Your task to perform on an android device: open app "Skype" (install if not already installed), go to login, and select forgot password Image 0: 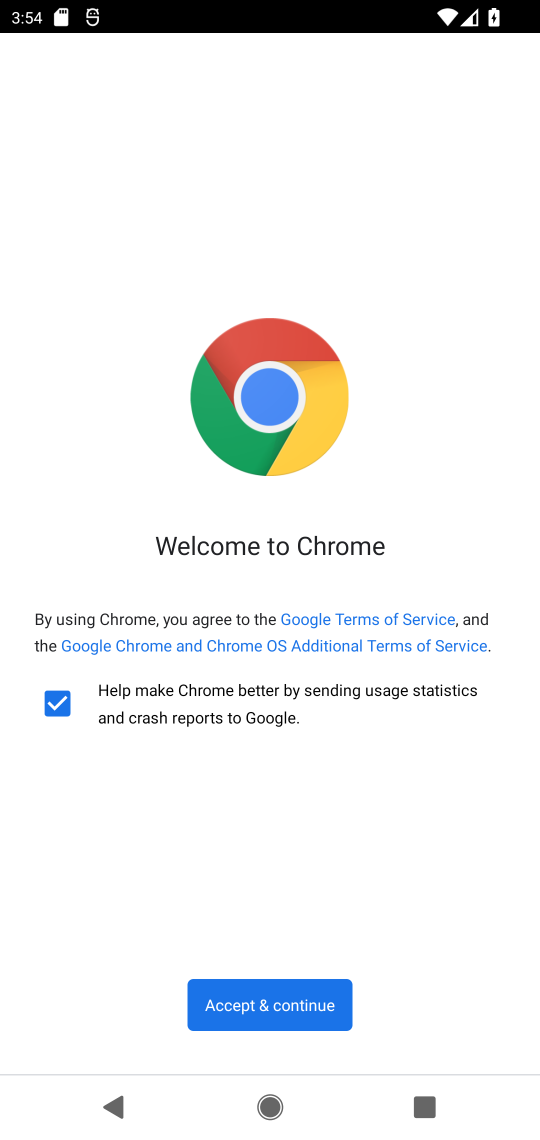
Step 0: press home button
Your task to perform on an android device: open app "Skype" (install if not already installed), go to login, and select forgot password Image 1: 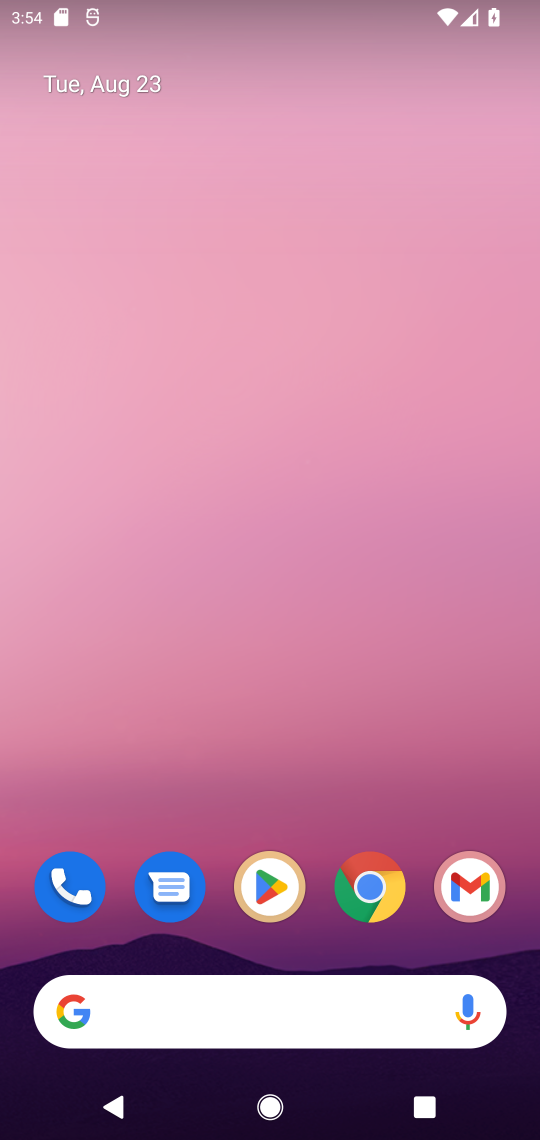
Step 1: click (278, 893)
Your task to perform on an android device: open app "Skype" (install if not already installed), go to login, and select forgot password Image 2: 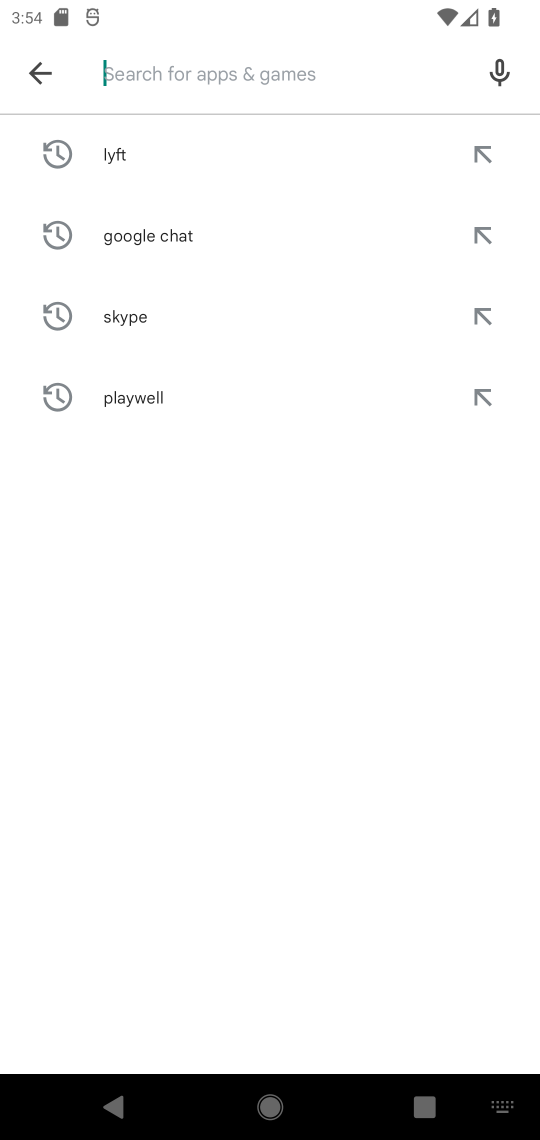
Step 2: click (45, 72)
Your task to perform on an android device: open app "Skype" (install if not already installed), go to login, and select forgot password Image 3: 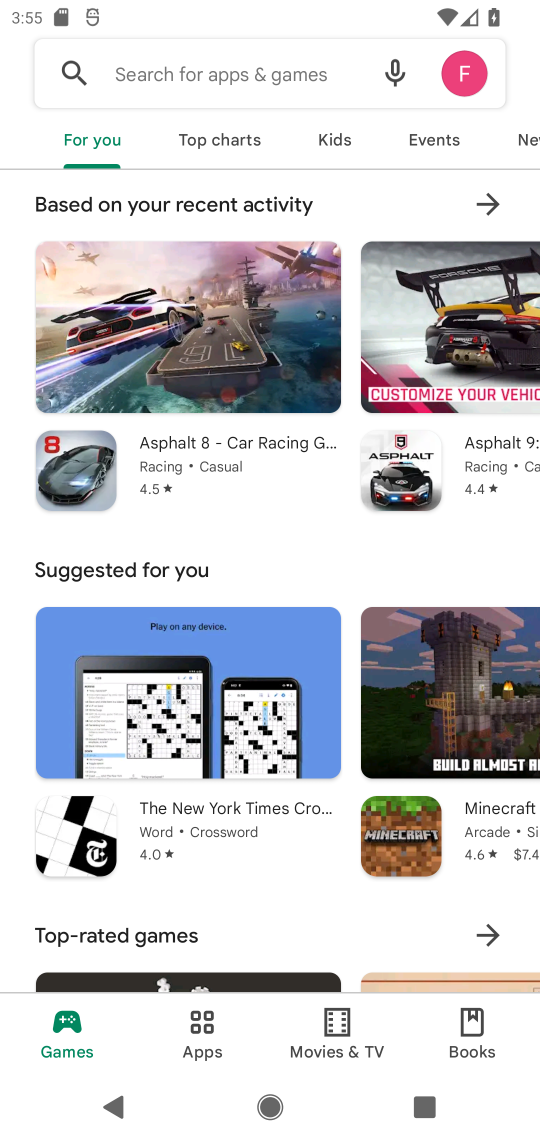
Step 3: click (216, 96)
Your task to perform on an android device: open app "Skype" (install if not already installed), go to login, and select forgot password Image 4: 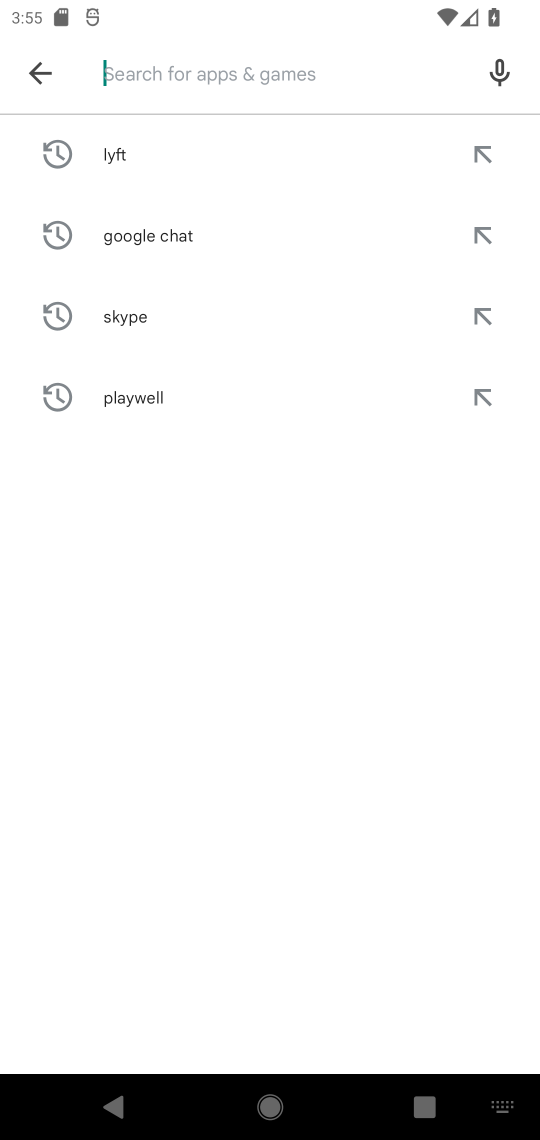
Step 4: type "Skype"
Your task to perform on an android device: open app "Skype" (install if not already installed), go to login, and select forgot password Image 5: 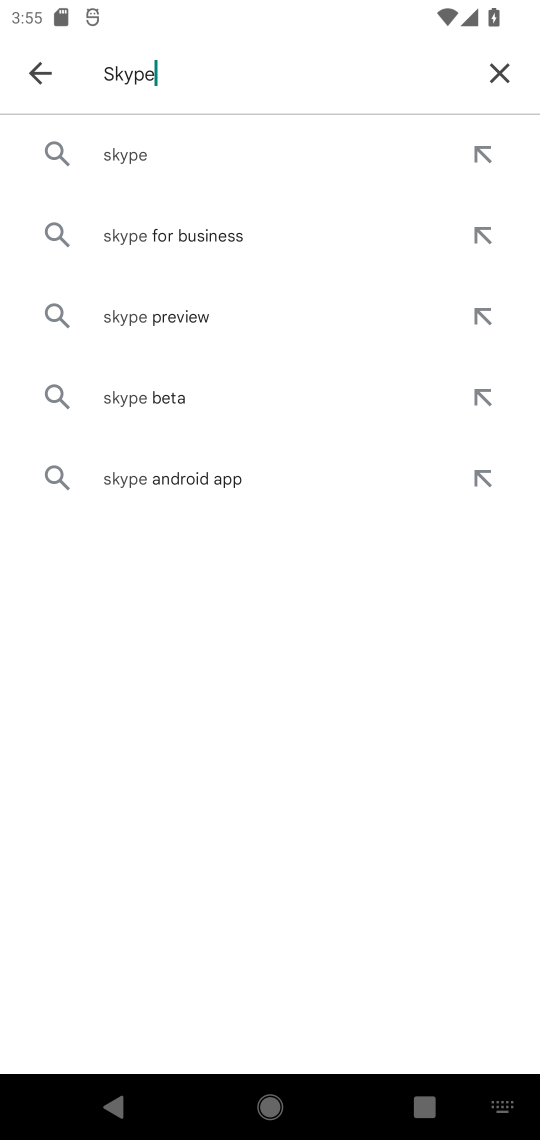
Step 5: click (119, 161)
Your task to perform on an android device: open app "Skype" (install if not already installed), go to login, and select forgot password Image 6: 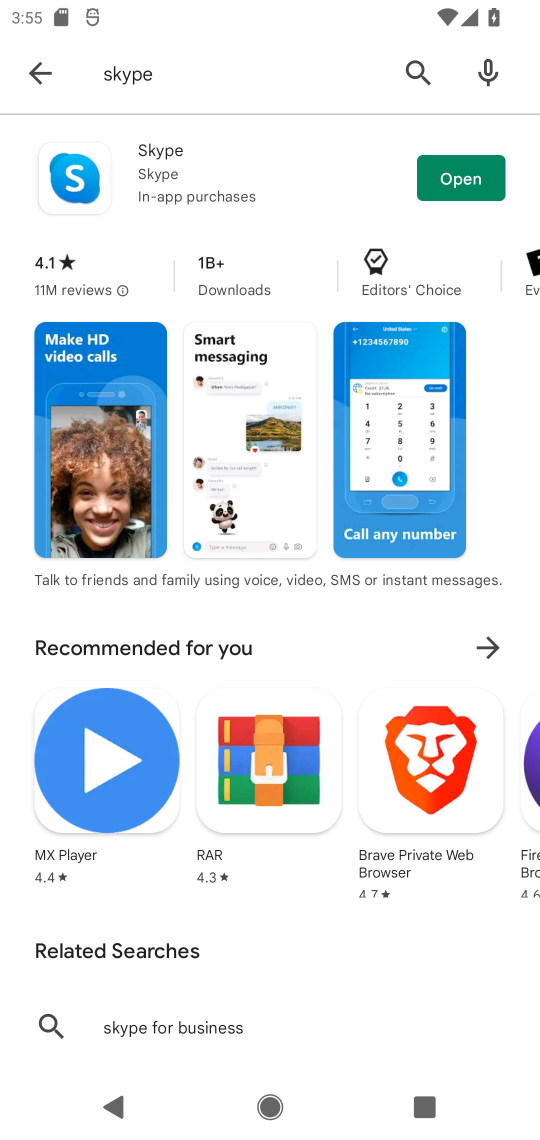
Step 6: click (469, 180)
Your task to perform on an android device: open app "Skype" (install if not already installed), go to login, and select forgot password Image 7: 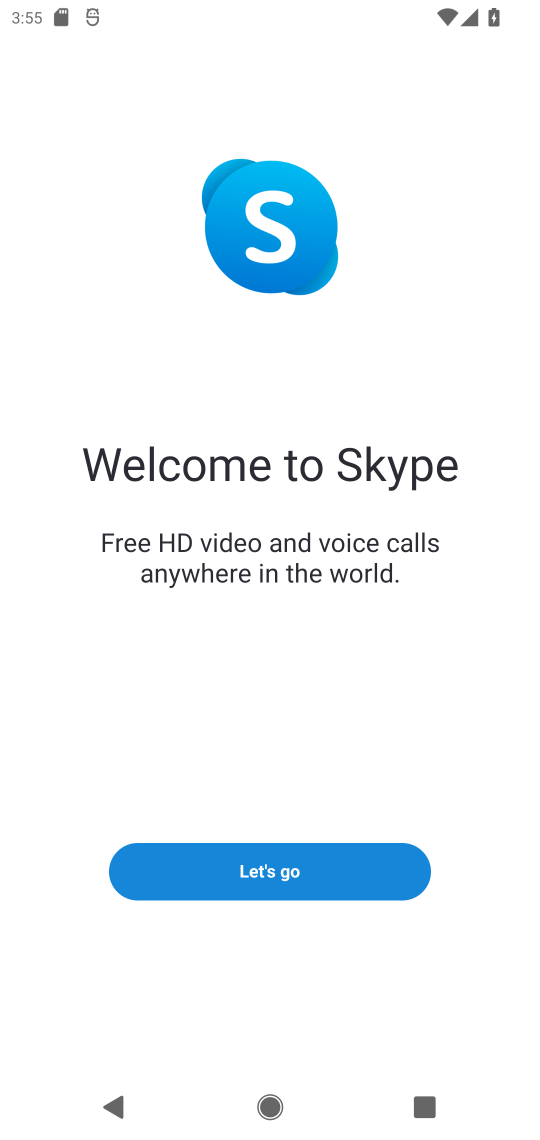
Step 7: task complete